Your task to perform on an android device: Go to sound settings Image 0: 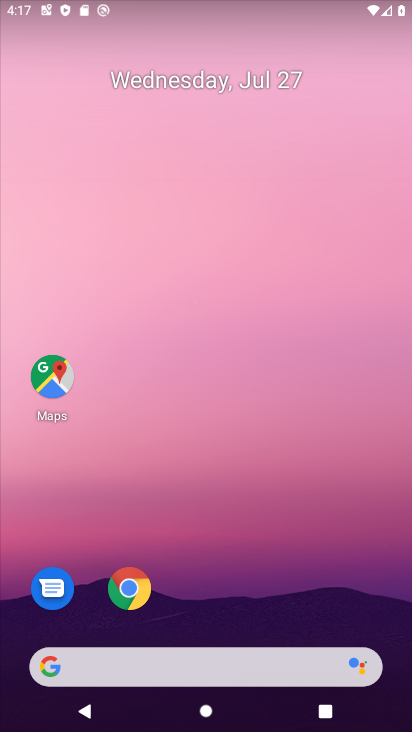
Step 0: drag from (227, 709) to (212, 165)
Your task to perform on an android device: Go to sound settings Image 1: 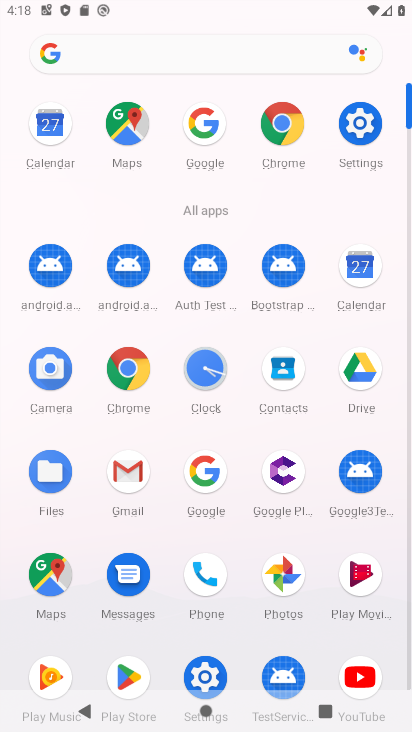
Step 1: click (361, 128)
Your task to perform on an android device: Go to sound settings Image 2: 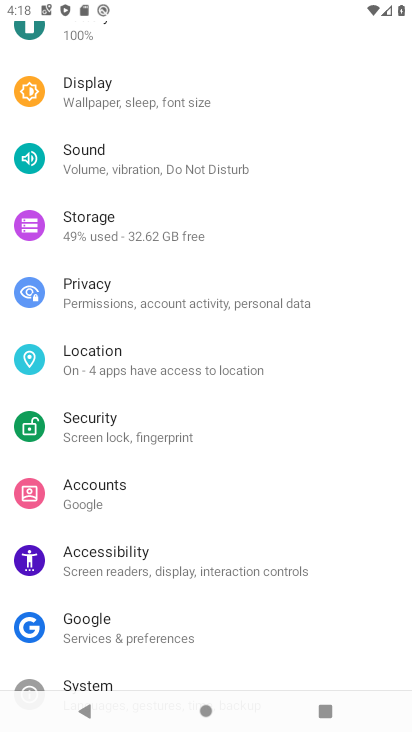
Step 2: click (96, 158)
Your task to perform on an android device: Go to sound settings Image 3: 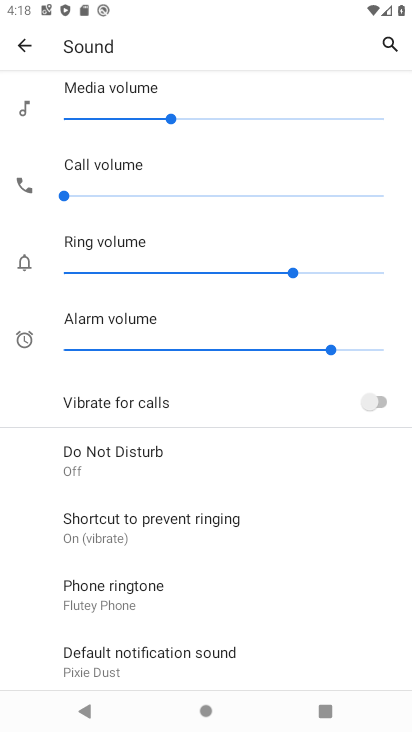
Step 3: task complete